Your task to perform on an android device: What's the news in Myanmar? Image 0: 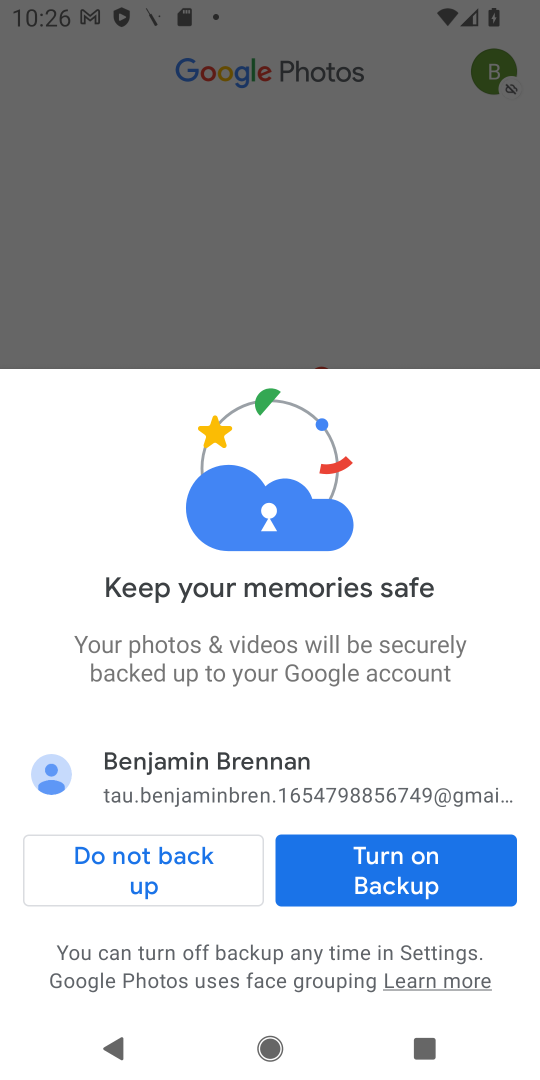
Step 0: press home button
Your task to perform on an android device: What's the news in Myanmar? Image 1: 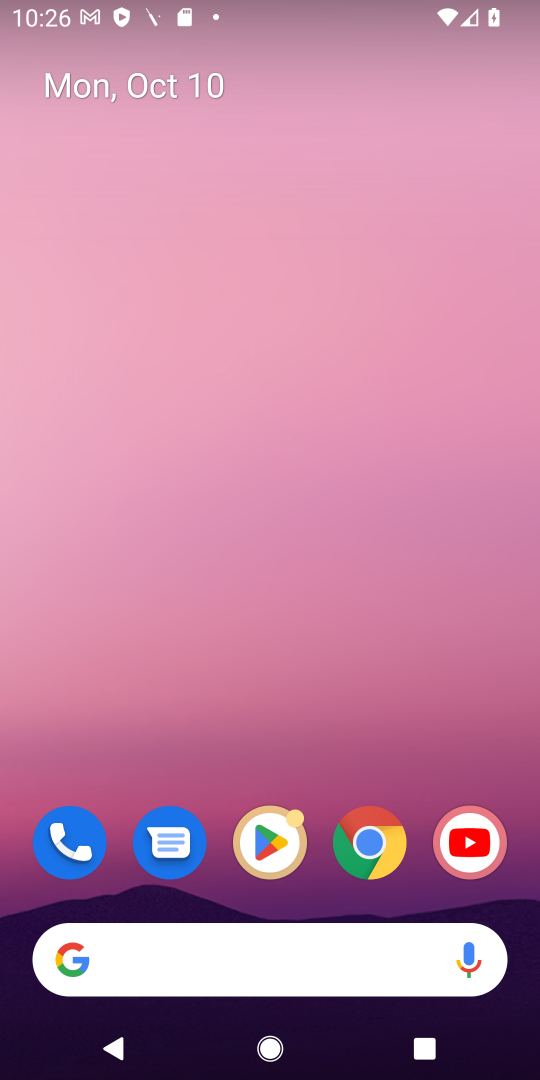
Step 1: click (222, 940)
Your task to perform on an android device: What's the news in Myanmar? Image 2: 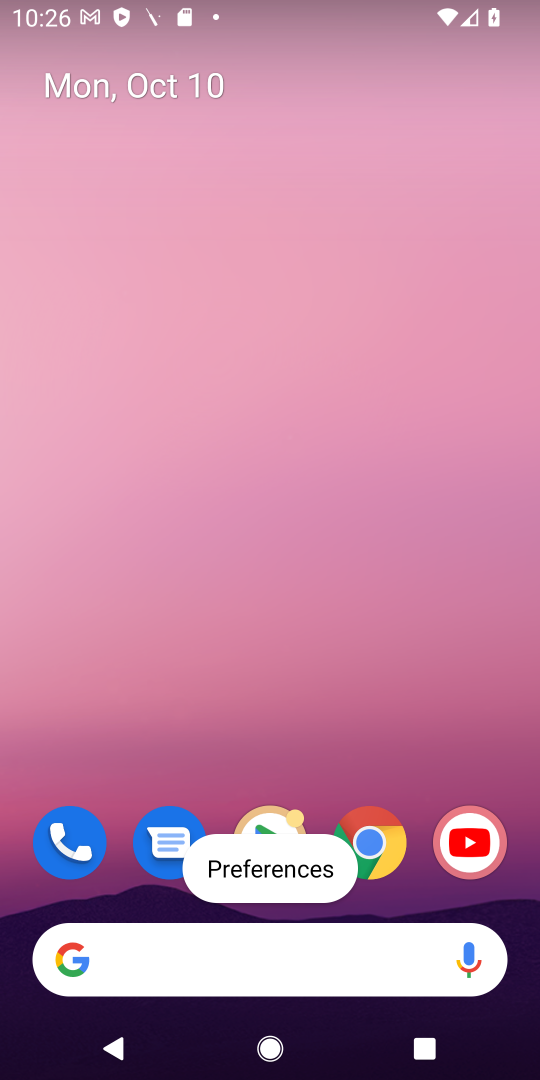
Step 2: click (196, 944)
Your task to perform on an android device: What's the news in Myanmar? Image 3: 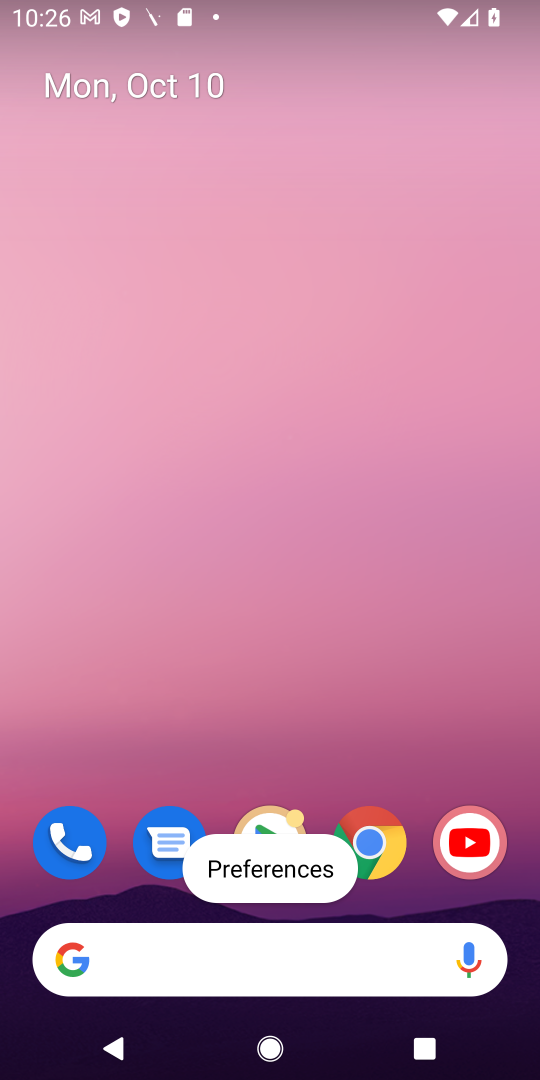
Step 3: click (190, 958)
Your task to perform on an android device: What's the news in Myanmar? Image 4: 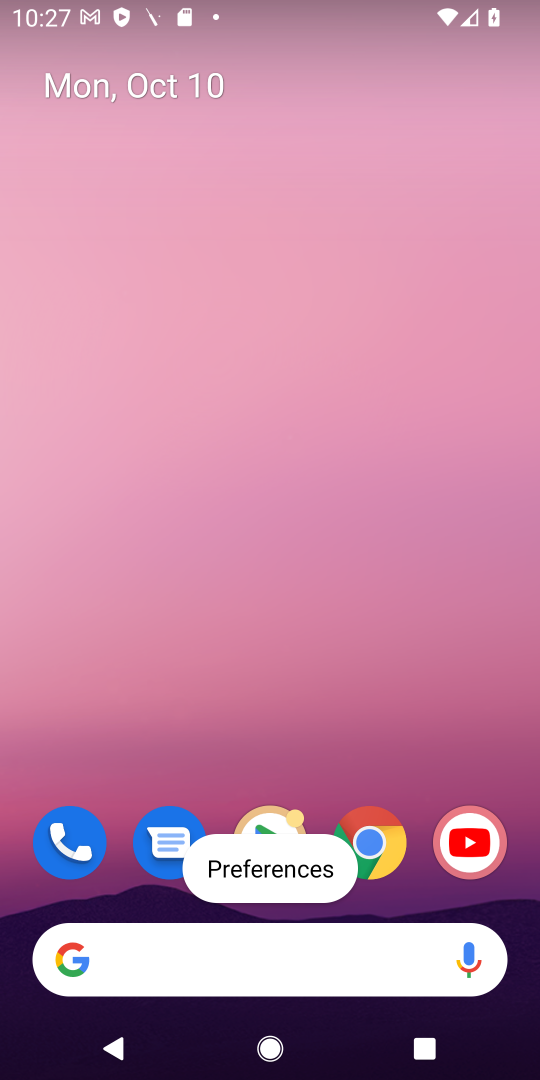
Step 4: click (170, 967)
Your task to perform on an android device: What's the news in Myanmar? Image 5: 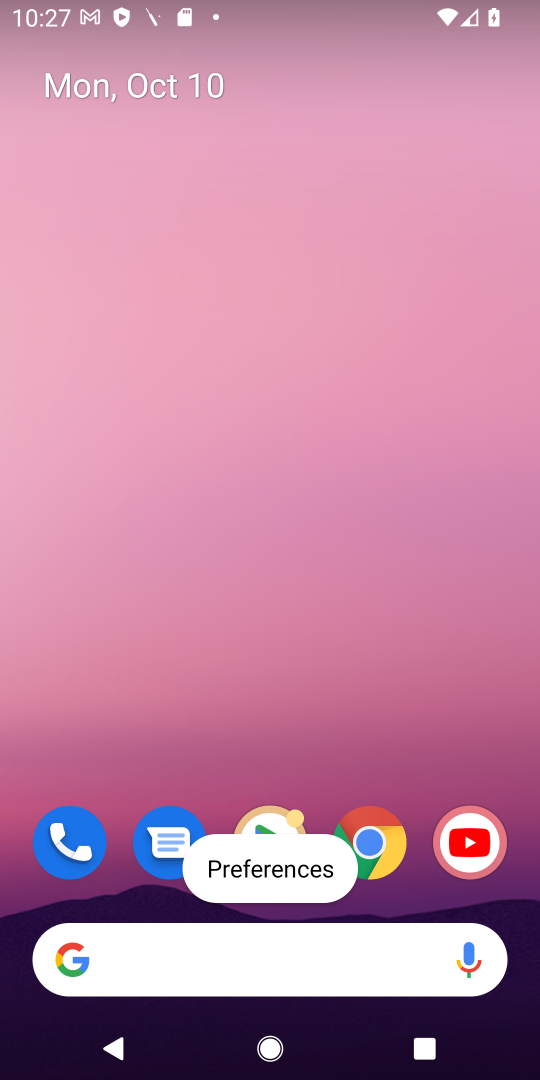
Step 5: click (371, 845)
Your task to perform on an android device: What's the news in Myanmar? Image 6: 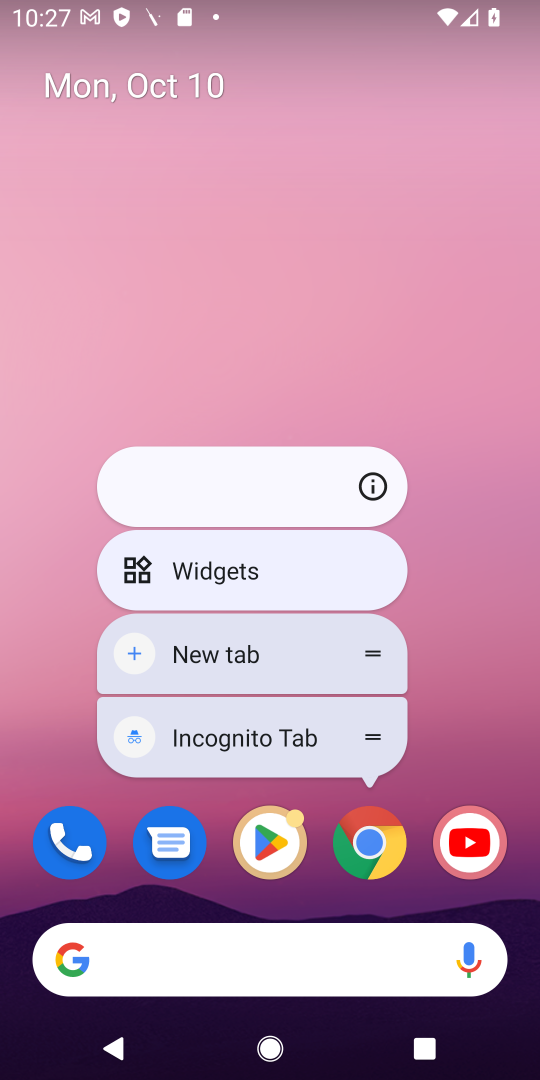
Step 6: click (359, 849)
Your task to perform on an android device: What's the news in Myanmar? Image 7: 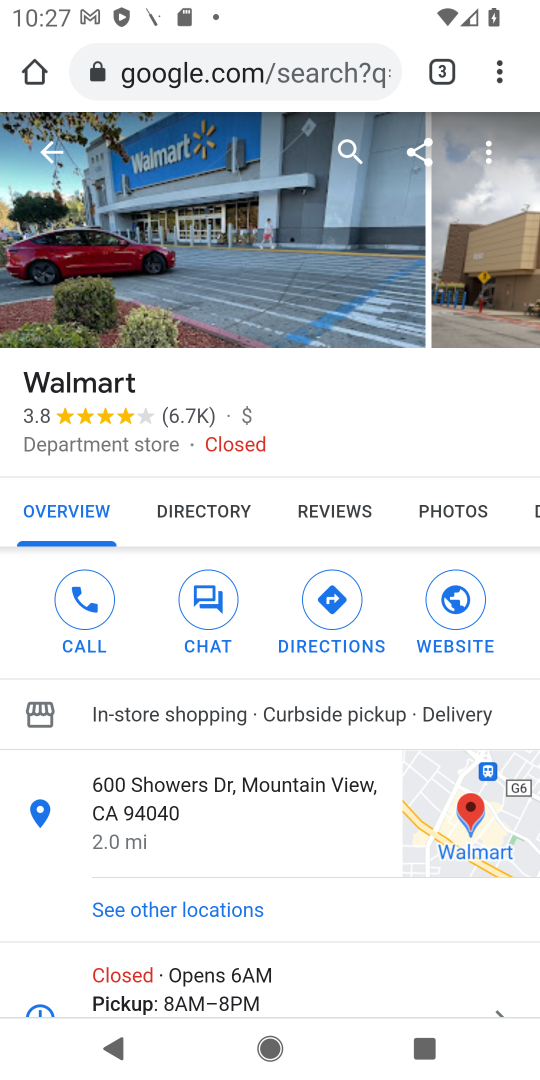
Step 7: click (306, 66)
Your task to perform on an android device: What's the news in Myanmar? Image 8: 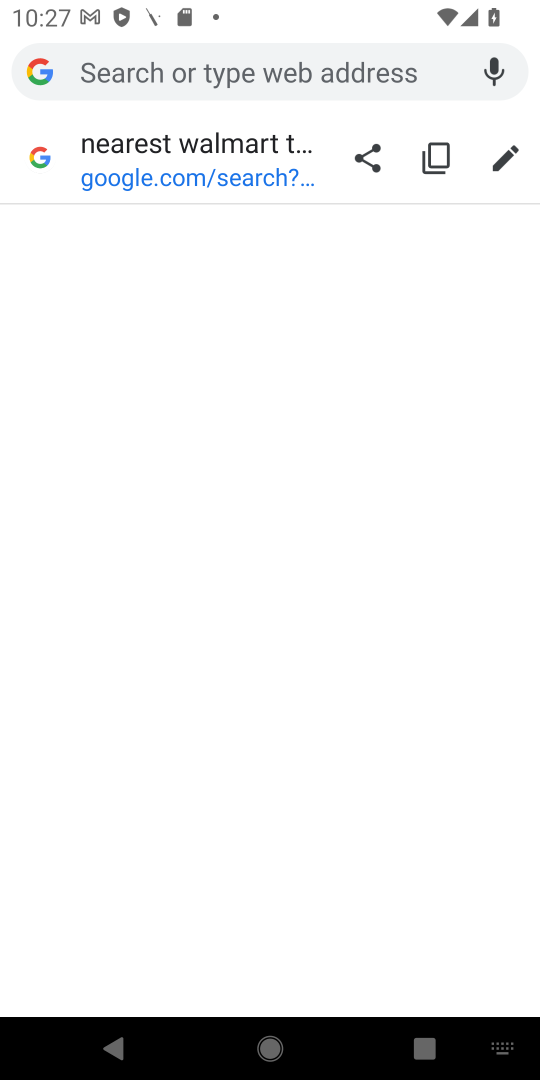
Step 8: type "myanmar news"
Your task to perform on an android device: What's the news in Myanmar? Image 9: 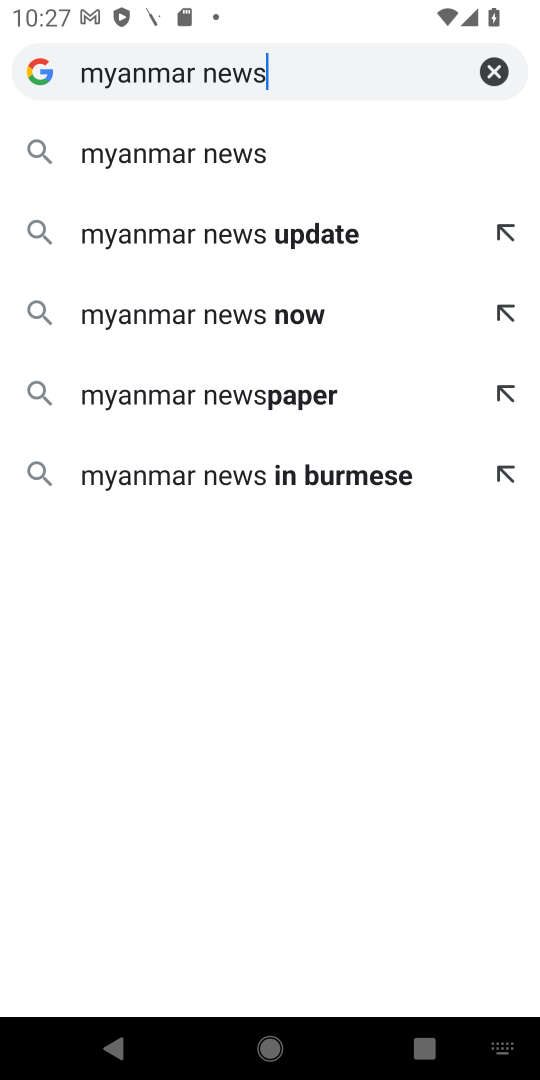
Step 9: click (134, 160)
Your task to perform on an android device: What's the news in Myanmar? Image 10: 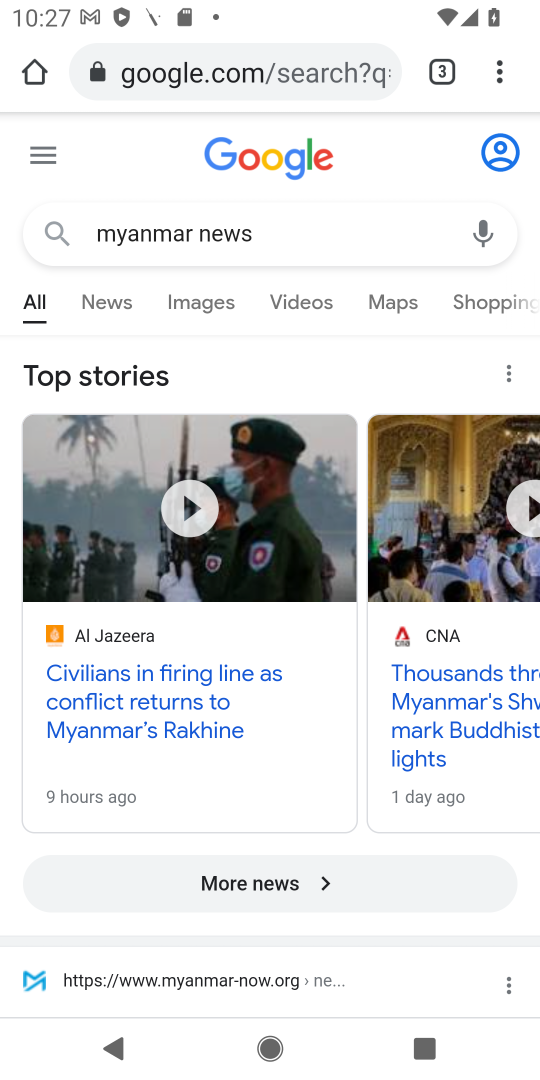
Step 10: click (107, 300)
Your task to perform on an android device: What's the news in Myanmar? Image 11: 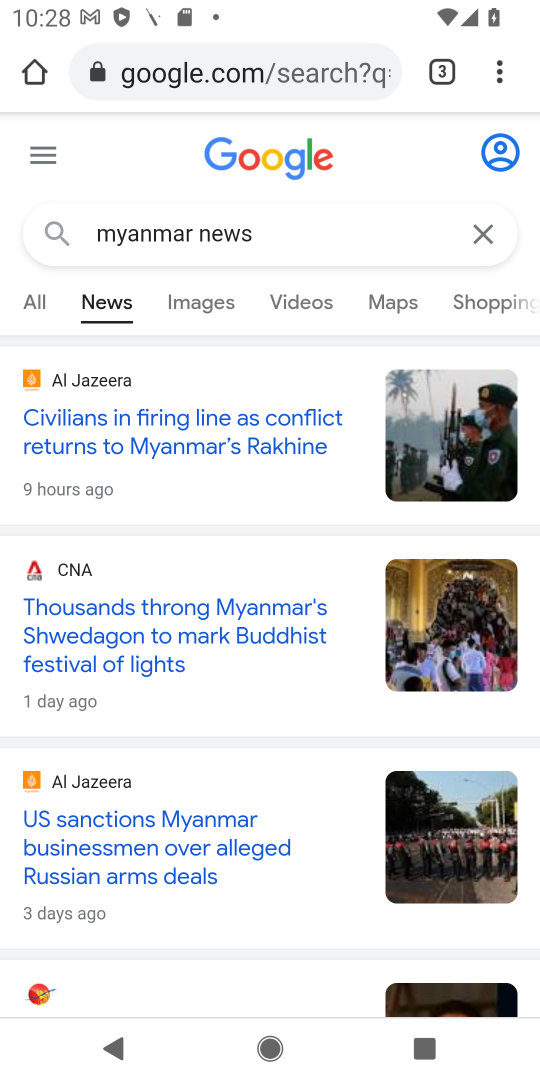
Step 11: click (117, 439)
Your task to perform on an android device: What's the news in Myanmar? Image 12: 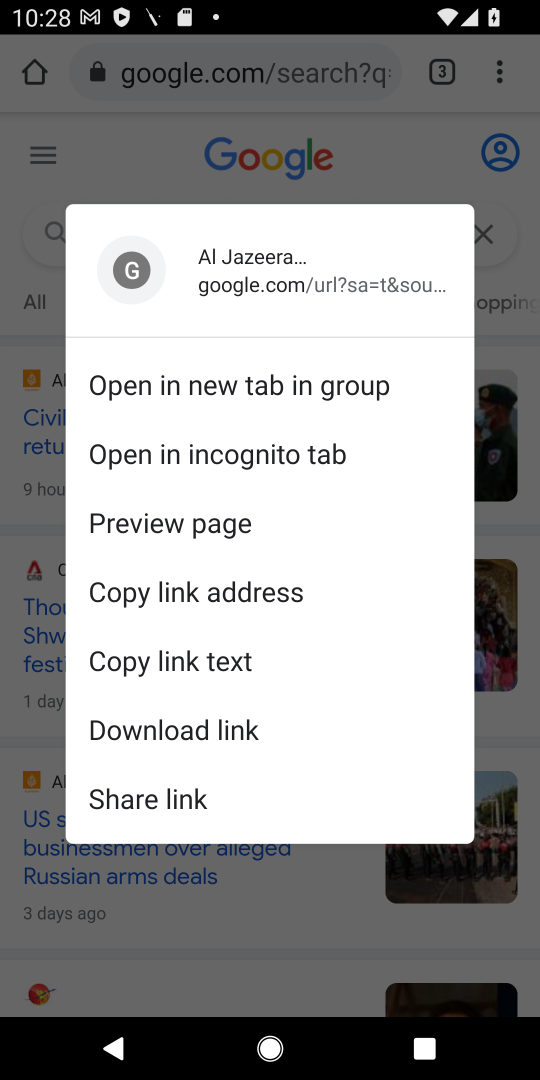
Step 12: click (35, 404)
Your task to perform on an android device: What's the news in Myanmar? Image 13: 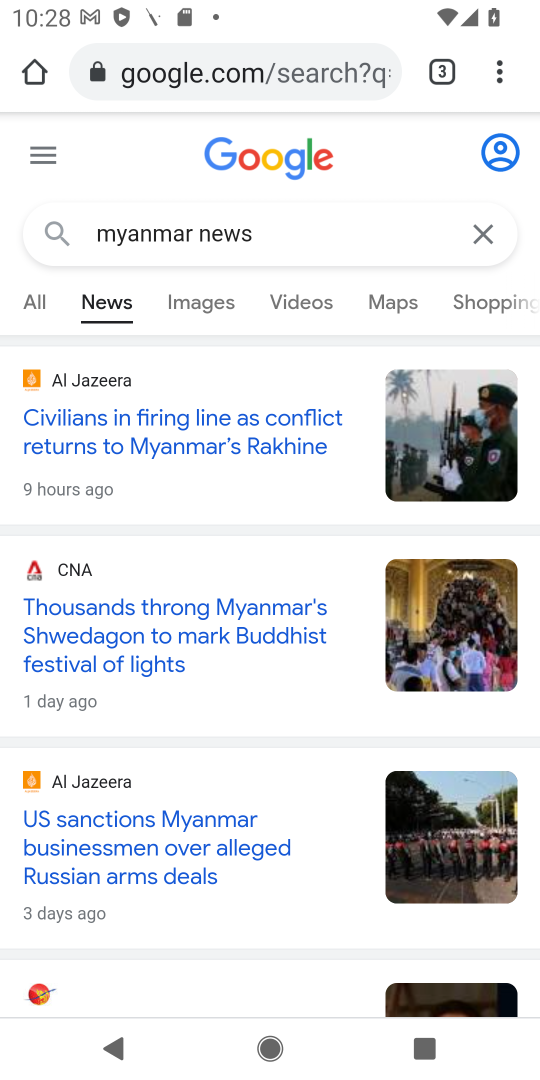
Step 13: click (45, 423)
Your task to perform on an android device: What's the news in Myanmar? Image 14: 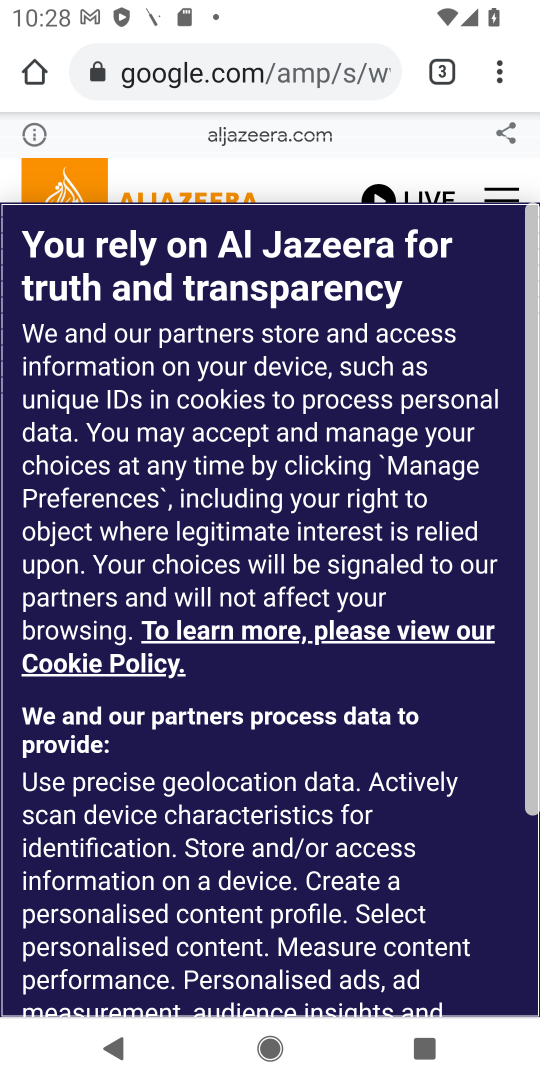
Step 14: task complete